Your task to perform on an android device: allow notifications from all sites in the chrome app Image 0: 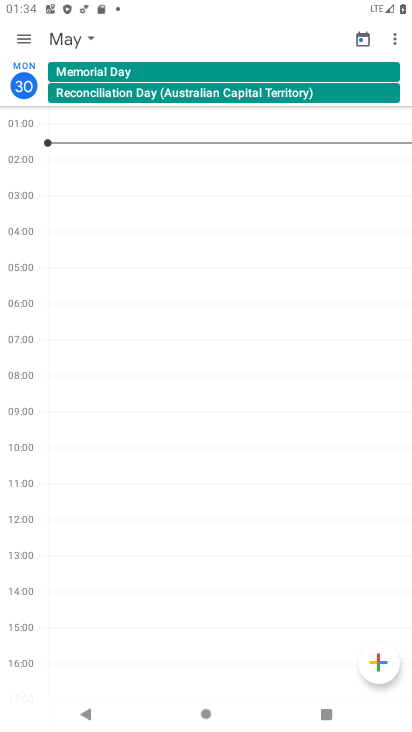
Step 0: press home button
Your task to perform on an android device: allow notifications from all sites in the chrome app Image 1: 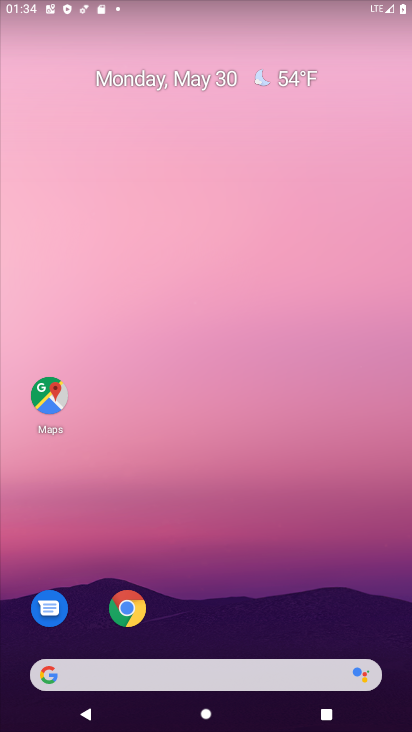
Step 1: drag from (257, 573) to (236, 215)
Your task to perform on an android device: allow notifications from all sites in the chrome app Image 2: 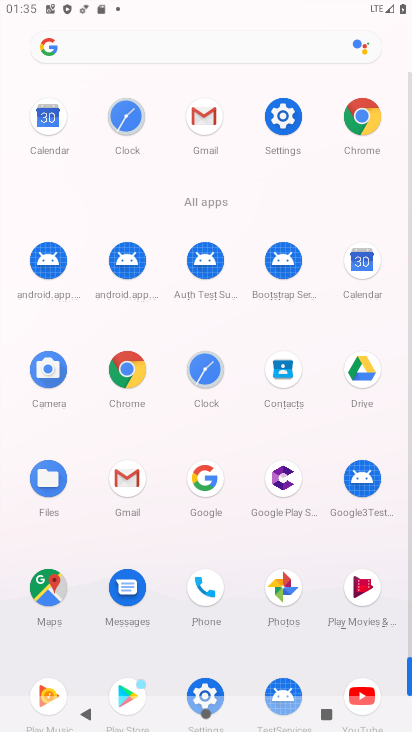
Step 2: click (207, 686)
Your task to perform on an android device: allow notifications from all sites in the chrome app Image 3: 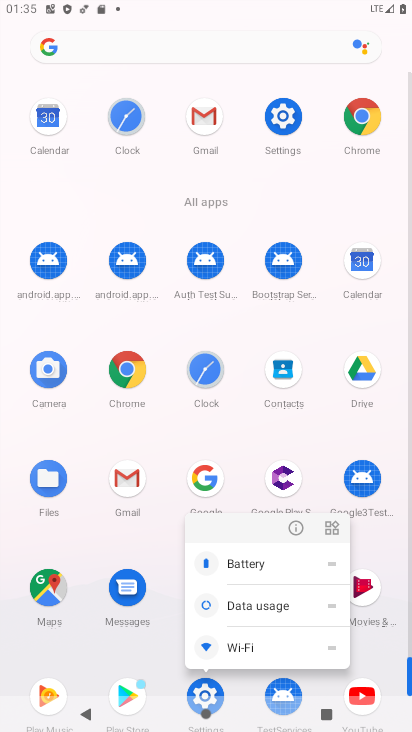
Step 3: click (113, 373)
Your task to perform on an android device: allow notifications from all sites in the chrome app Image 4: 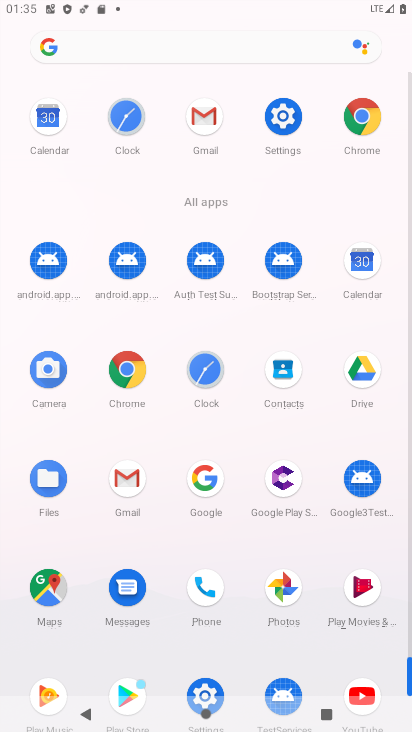
Step 4: click (113, 373)
Your task to perform on an android device: allow notifications from all sites in the chrome app Image 5: 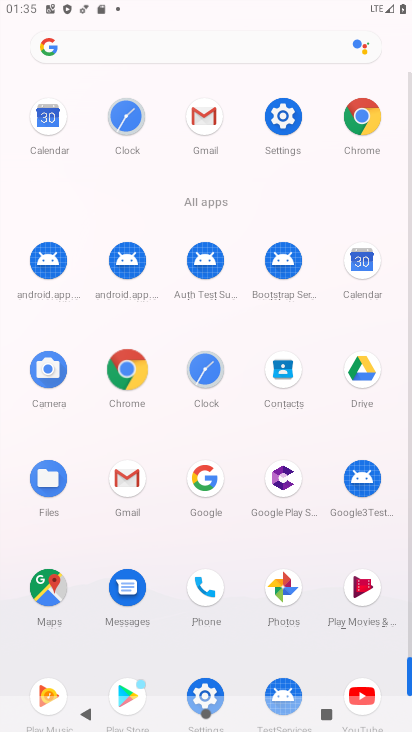
Step 5: click (120, 362)
Your task to perform on an android device: allow notifications from all sites in the chrome app Image 6: 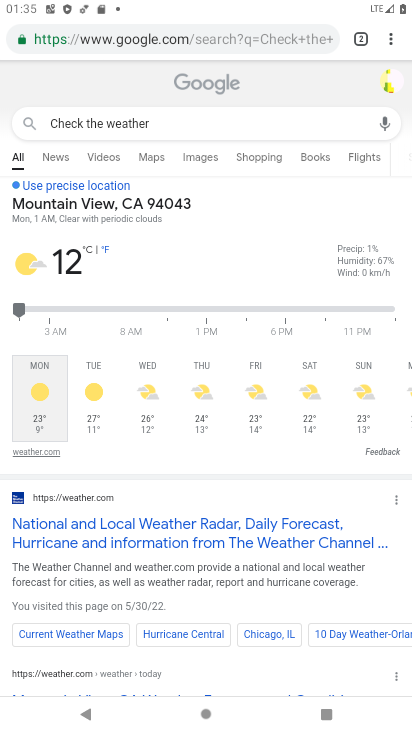
Step 6: click (400, 34)
Your task to perform on an android device: allow notifications from all sites in the chrome app Image 7: 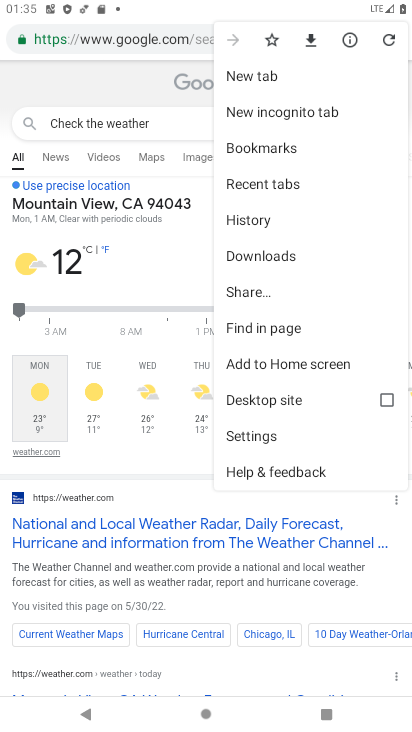
Step 7: click (276, 441)
Your task to perform on an android device: allow notifications from all sites in the chrome app Image 8: 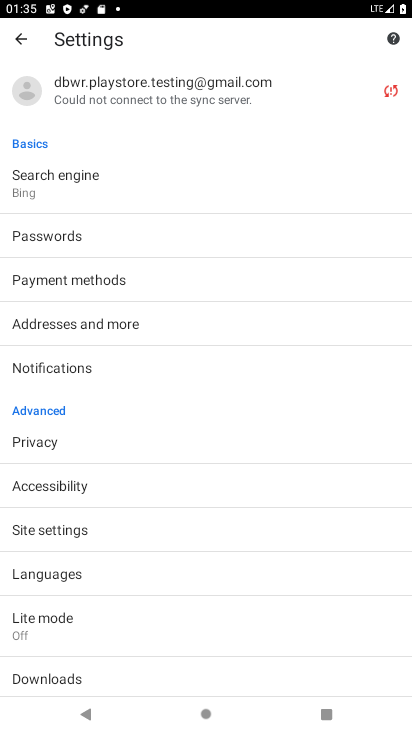
Step 8: click (122, 530)
Your task to perform on an android device: allow notifications from all sites in the chrome app Image 9: 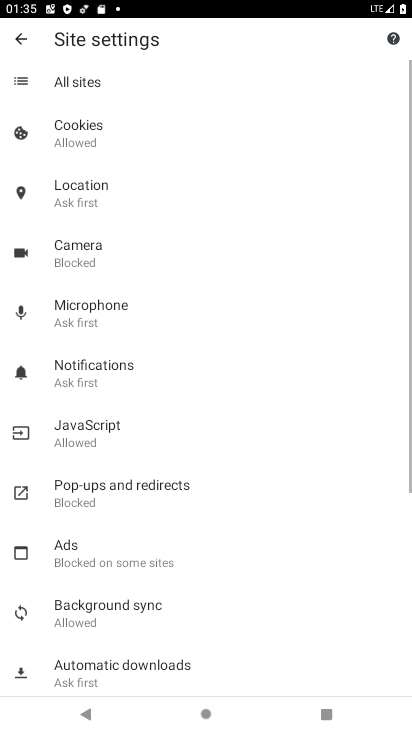
Step 9: click (78, 130)
Your task to perform on an android device: allow notifications from all sites in the chrome app Image 10: 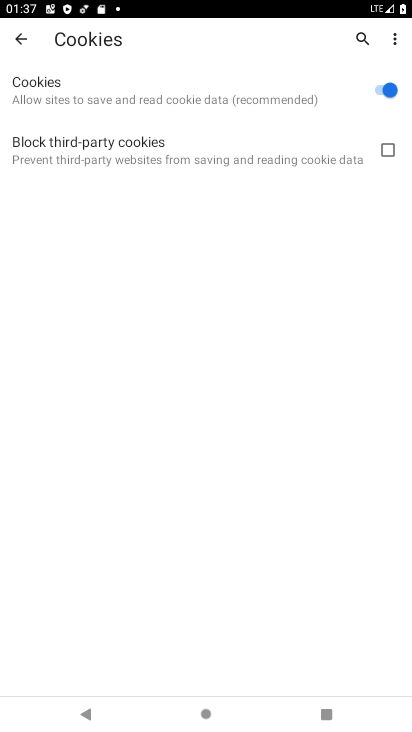
Step 10: task complete